Your task to perform on an android device: Go to notification settings Image 0: 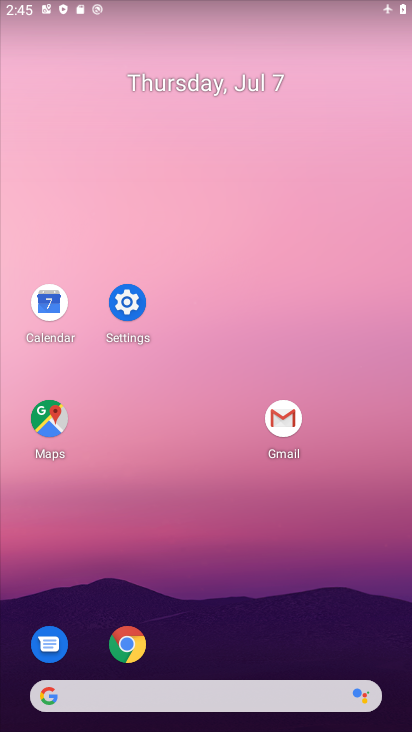
Step 0: drag from (398, 559) to (306, 114)
Your task to perform on an android device: Go to notification settings Image 1: 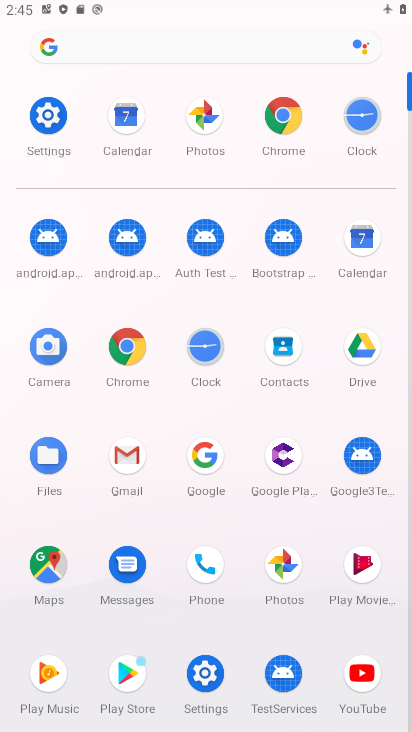
Step 1: click (50, 107)
Your task to perform on an android device: Go to notification settings Image 2: 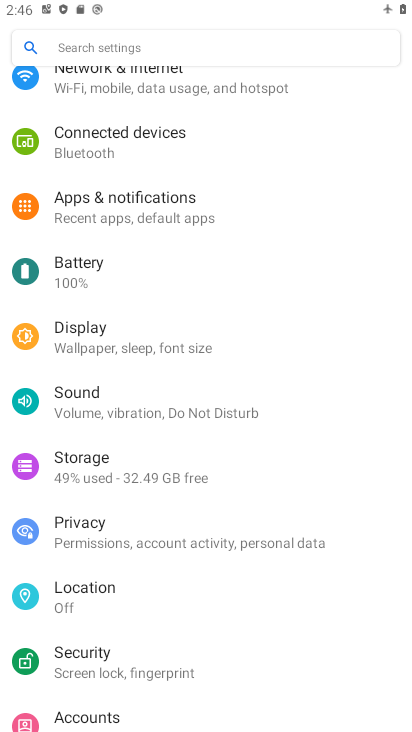
Step 2: click (127, 207)
Your task to perform on an android device: Go to notification settings Image 3: 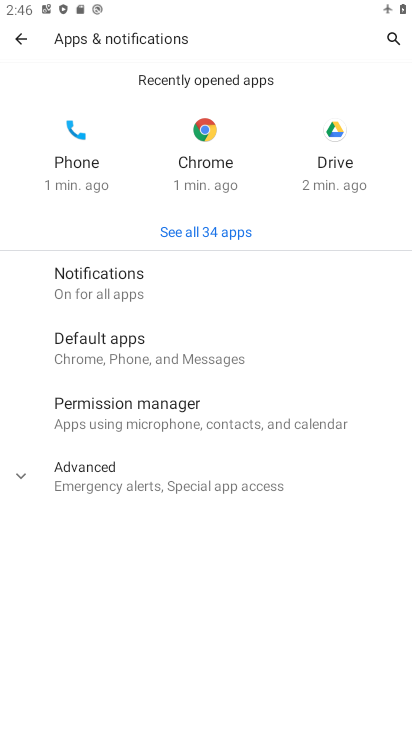
Step 3: click (116, 275)
Your task to perform on an android device: Go to notification settings Image 4: 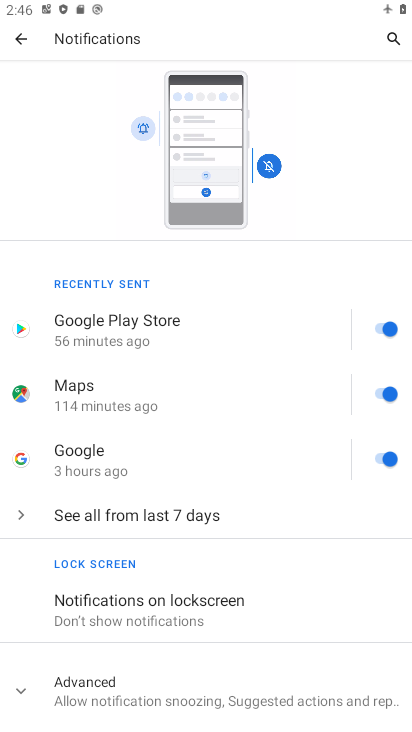
Step 4: drag from (282, 595) to (297, 299)
Your task to perform on an android device: Go to notification settings Image 5: 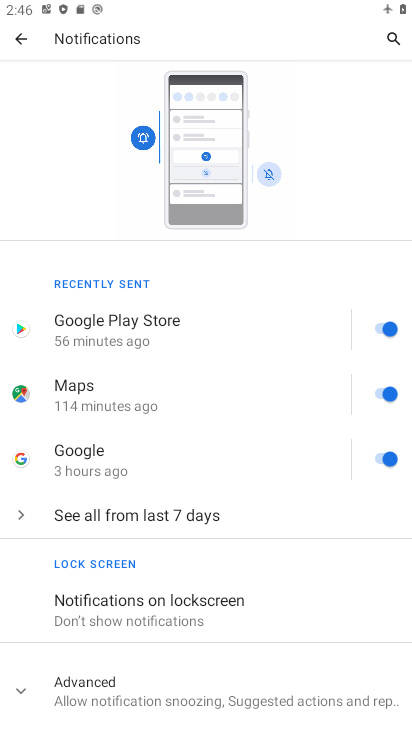
Step 5: click (14, 688)
Your task to perform on an android device: Go to notification settings Image 6: 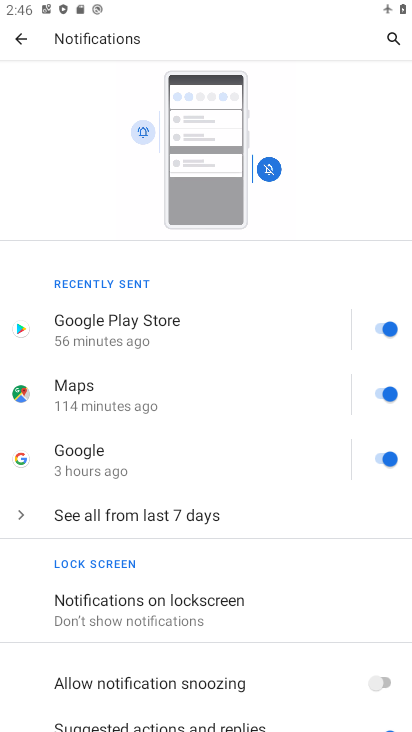
Step 6: task complete